Your task to perform on an android device: empty trash in google photos Image 0: 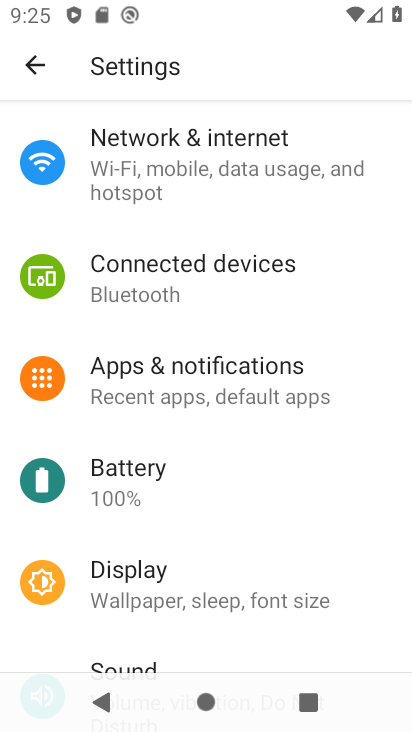
Step 0: press home button
Your task to perform on an android device: empty trash in google photos Image 1: 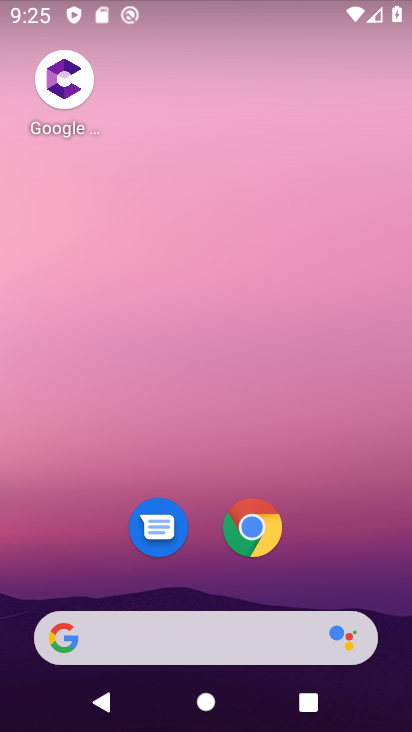
Step 1: drag from (271, 540) to (200, 10)
Your task to perform on an android device: empty trash in google photos Image 2: 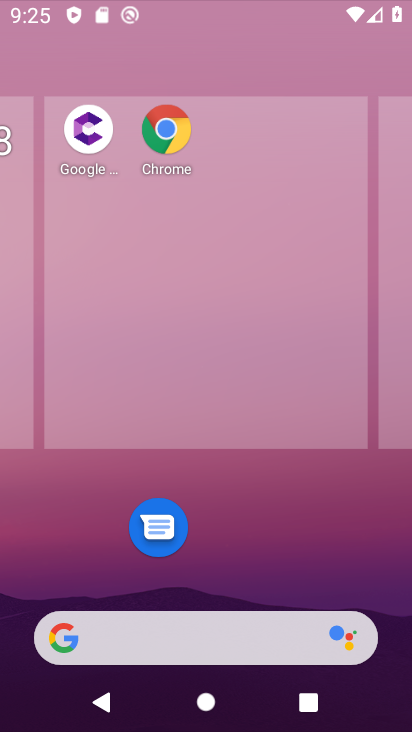
Step 2: click (281, 522)
Your task to perform on an android device: empty trash in google photos Image 3: 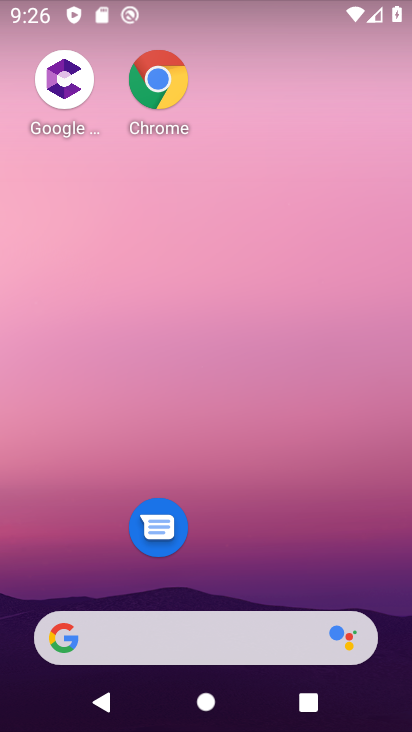
Step 3: drag from (281, 522) to (254, 56)
Your task to perform on an android device: empty trash in google photos Image 4: 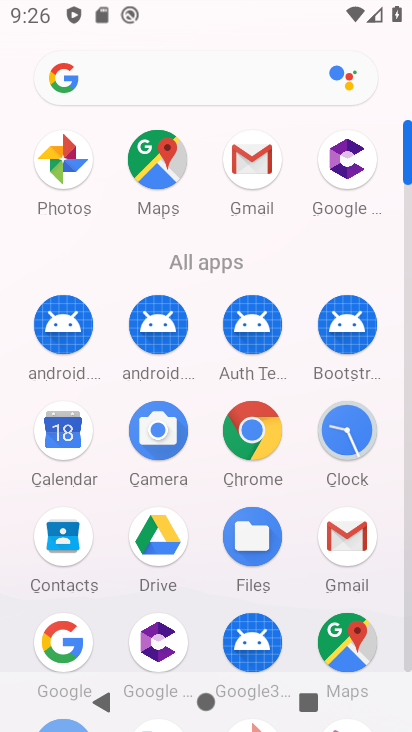
Step 4: click (55, 160)
Your task to perform on an android device: empty trash in google photos Image 5: 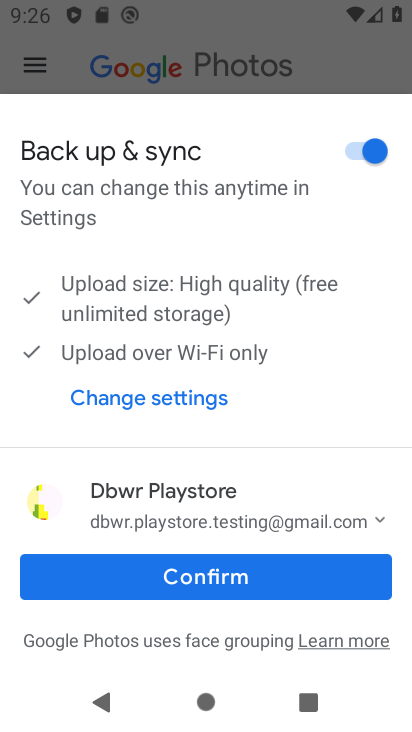
Step 5: click (227, 572)
Your task to perform on an android device: empty trash in google photos Image 6: 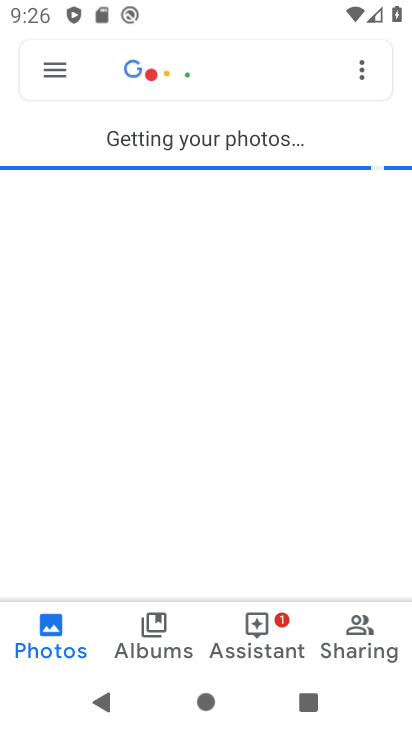
Step 6: click (60, 83)
Your task to perform on an android device: empty trash in google photos Image 7: 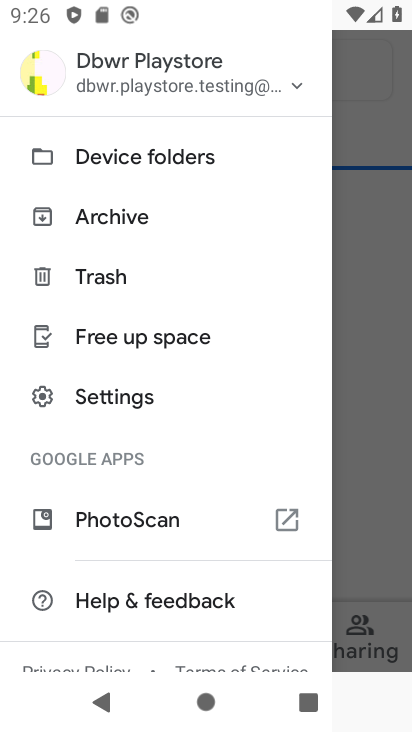
Step 7: click (167, 275)
Your task to perform on an android device: empty trash in google photos Image 8: 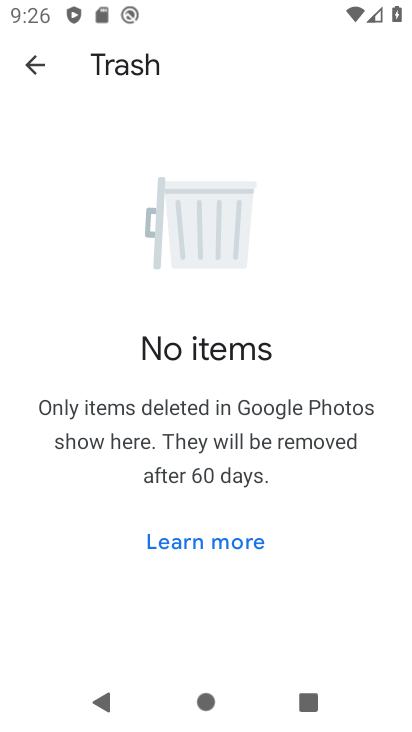
Step 8: task complete